Your task to perform on an android device: What is the news today? Image 0: 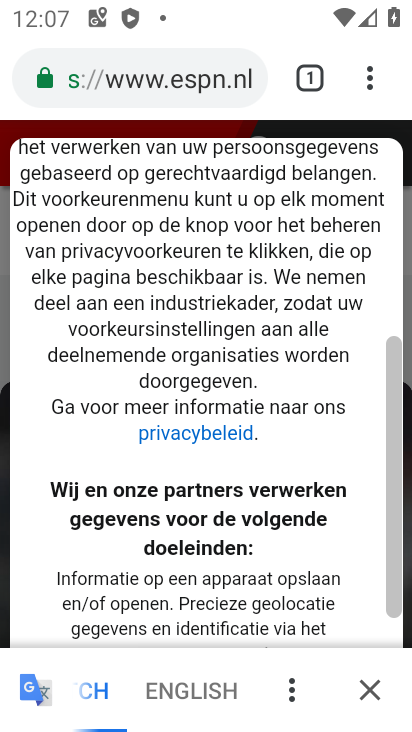
Step 0: press back button
Your task to perform on an android device: What is the news today? Image 1: 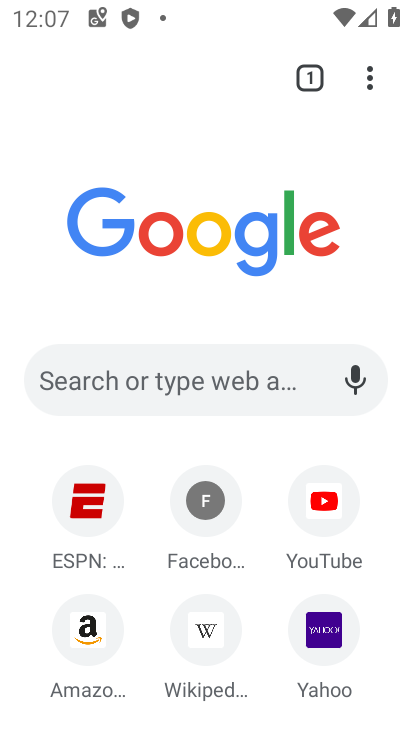
Step 1: press back button
Your task to perform on an android device: What is the news today? Image 2: 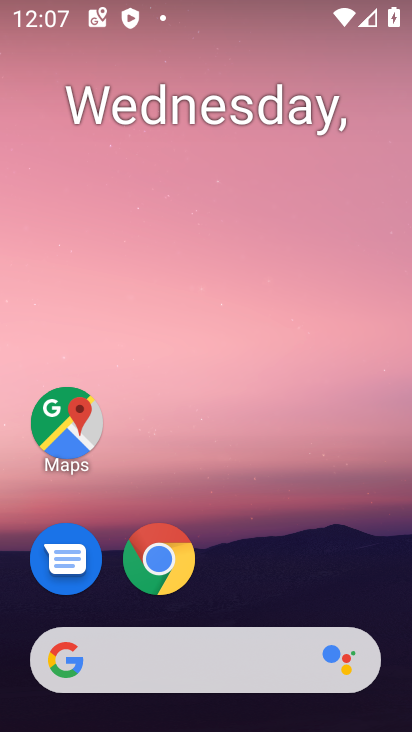
Step 2: drag from (273, 563) to (343, 8)
Your task to perform on an android device: What is the news today? Image 3: 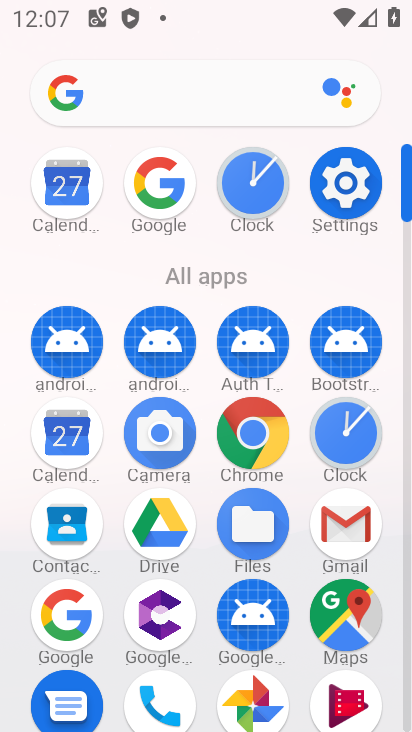
Step 3: click (172, 109)
Your task to perform on an android device: What is the news today? Image 4: 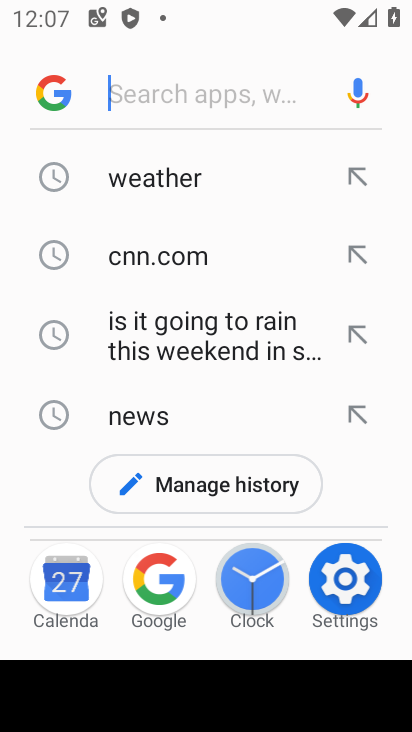
Step 4: click (162, 83)
Your task to perform on an android device: What is the news today? Image 5: 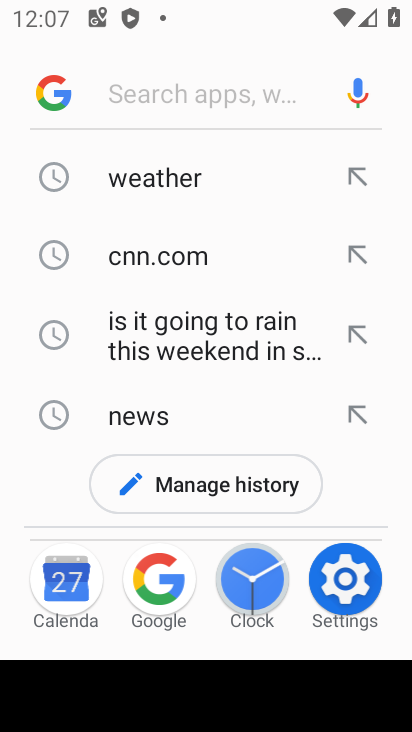
Step 5: type "news today"
Your task to perform on an android device: What is the news today? Image 6: 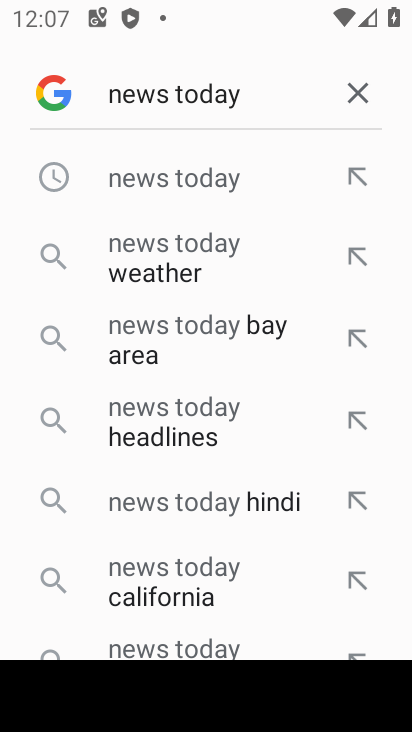
Step 6: click (228, 185)
Your task to perform on an android device: What is the news today? Image 7: 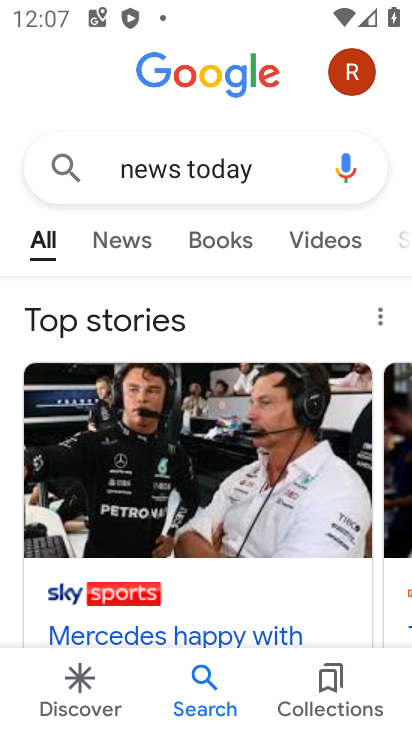
Step 7: task complete